Your task to perform on an android device: Open Youtube and go to "Your channel" Image 0: 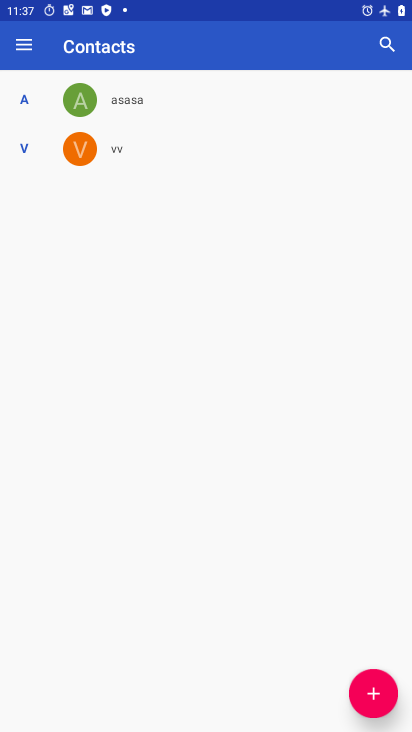
Step 0: press home button
Your task to perform on an android device: Open Youtube and go to "Your channel" Image 1: 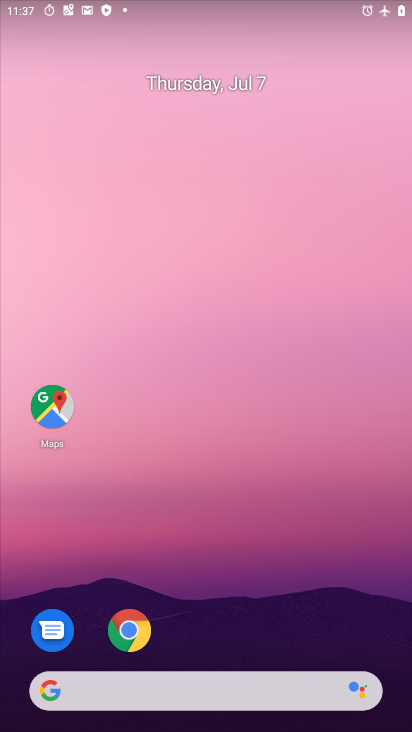
Step 1: drag from (180, 605) to (205, 182)
Your task to perform on an android device: Open Youtube and go to "Your channel" Image 2: 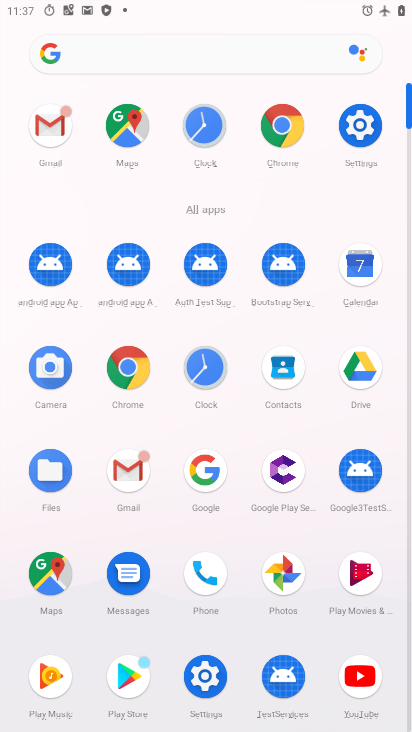
Step 2: click (348, 673)
Your task to perform on an android device: Open Youtube and go to "Your channel" Image 3: 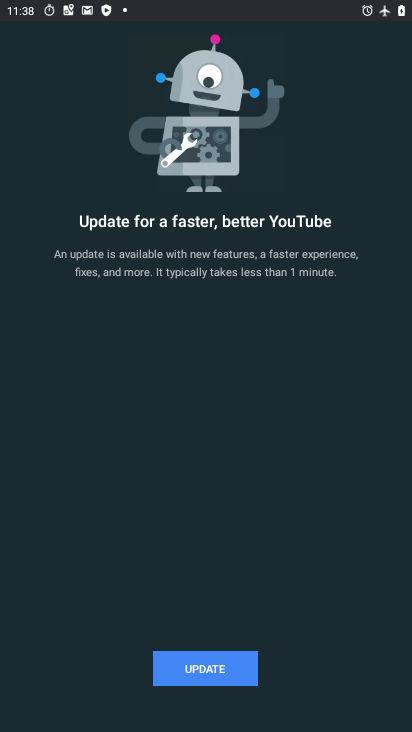
Step 3: click (231, 665)
Your task to perform on an android device: Open Youtube and go to "Your channel" Image 4: 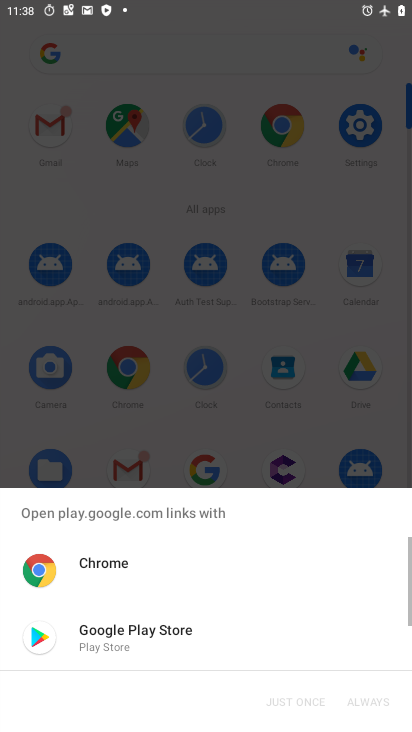
Step 4: click (180, 638)
Your task to perform on an android device: Open Youtube and go to "Your channel" Image 5: 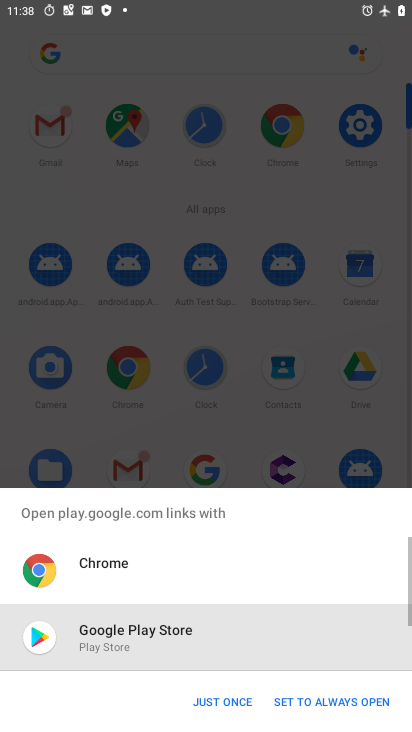
Step 5: click (228, 694)
Your task to perform on an android device: Open Youtube and go to "Your channel" Image 6: 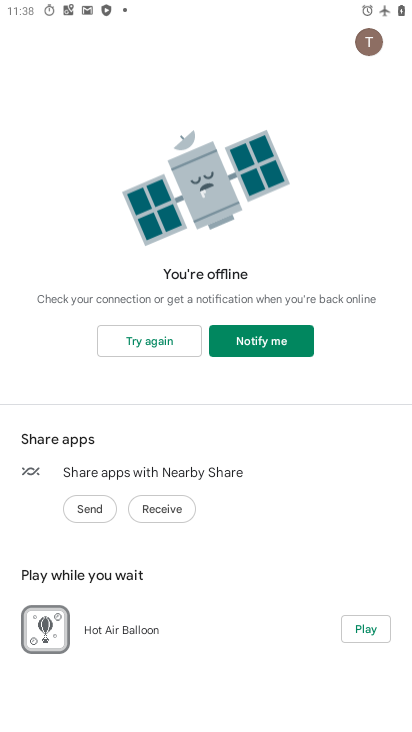
Step 6: task complete